Your task to perform on an android device: turn off improve location accuracy Image 0: 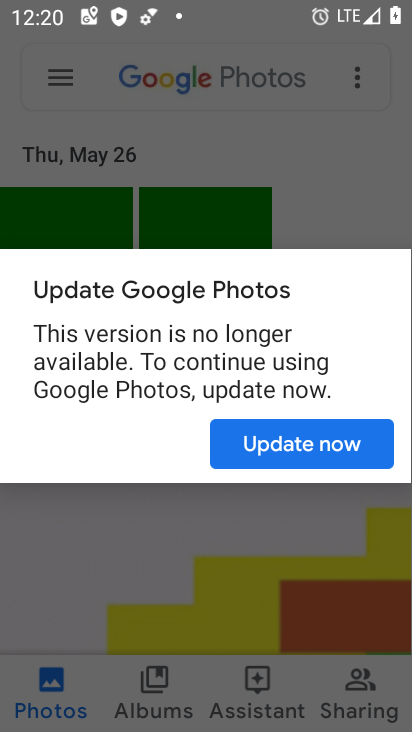
Step 0: press home button
Your task to perform on an android device: turn off improve location accuracy Image 1: 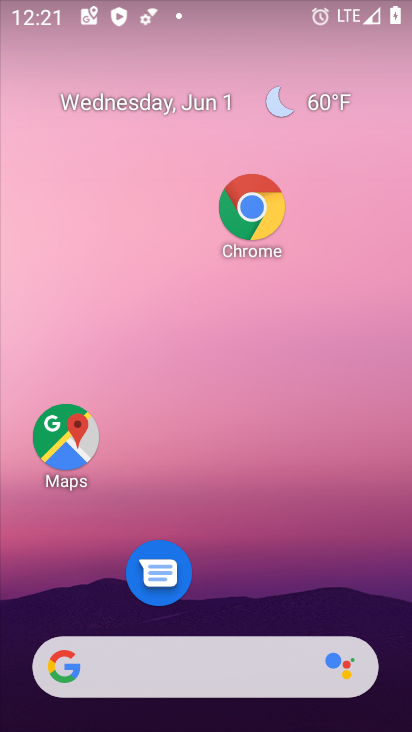
Step 1: drag from (206, 573) to (167, 203)
Your task to perform on an android device: turn off improve location accuracy Image 2: 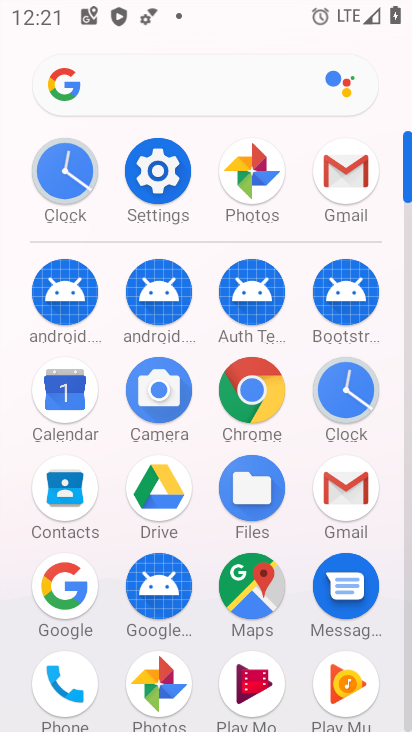
Step 2: click (154, 184)
Your task to perform on an android device: turn off improve location accuracy Image 3: 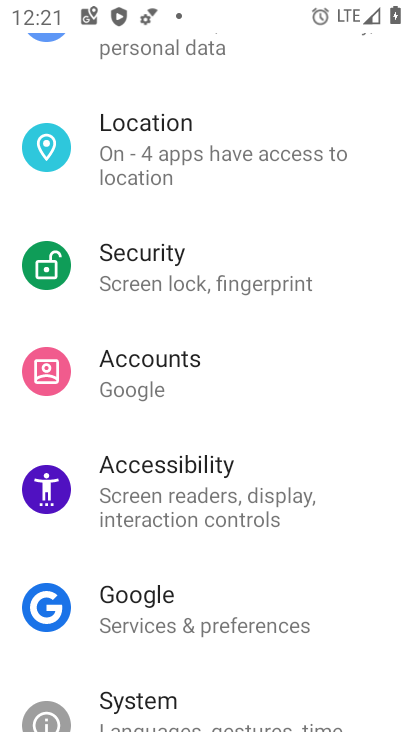
Step 3: click (190, 182)
Your task to perform on an android device: turn off improve location accuracy Image 4: 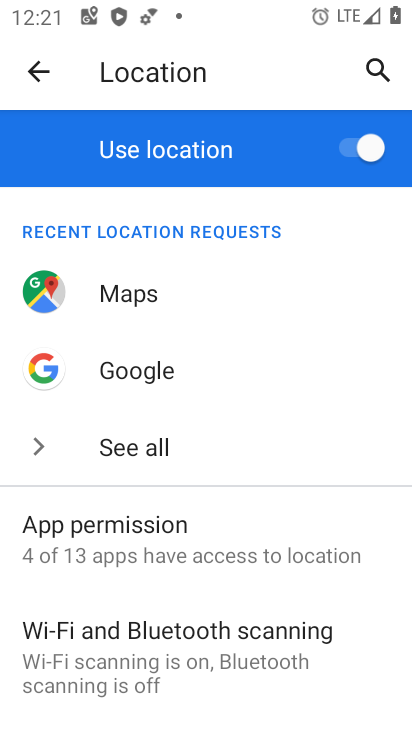
Step 4: drag from (235, 606) to (246, 357)
Your task to perform on an android device: turn off improve location accuracy Image 5: 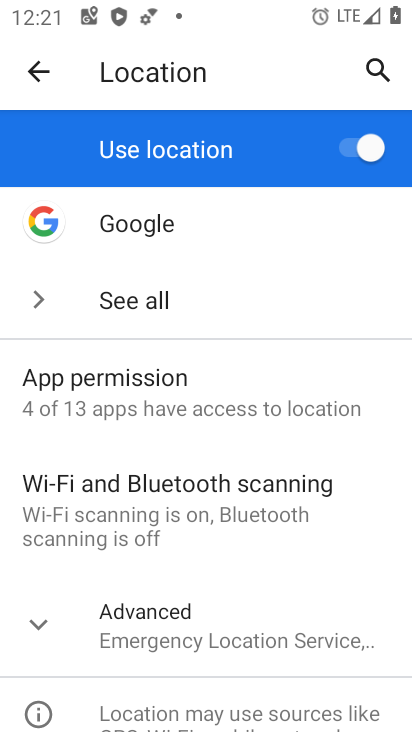
Step 5: click (211, 607)
Your task to perform on an android device: turn off improve location accuracy Image 6: 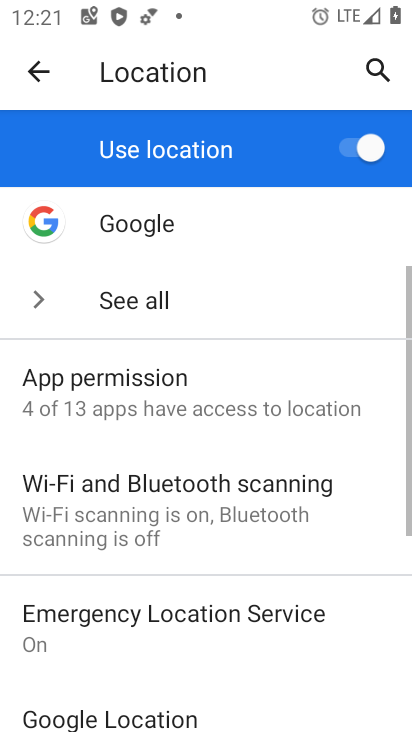
Step 6: drag from (220, 611) to (221, 392)
Your task to perform on an android device: turn off improve location accuracy Image 7: 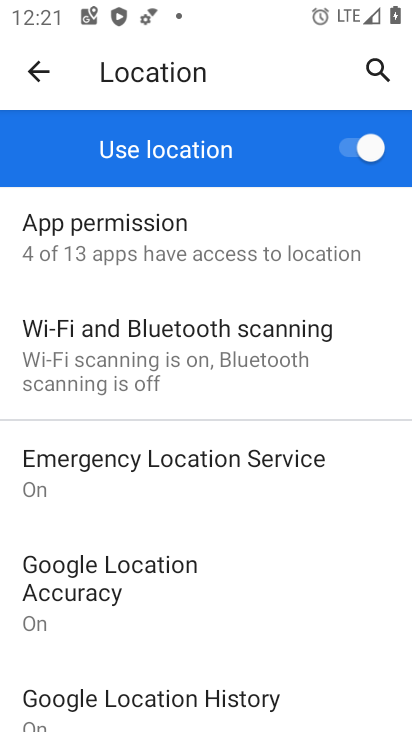
Step 7: click (161, 609)
Your task to perform on an android device: turn off improve location accuracy Image 8: 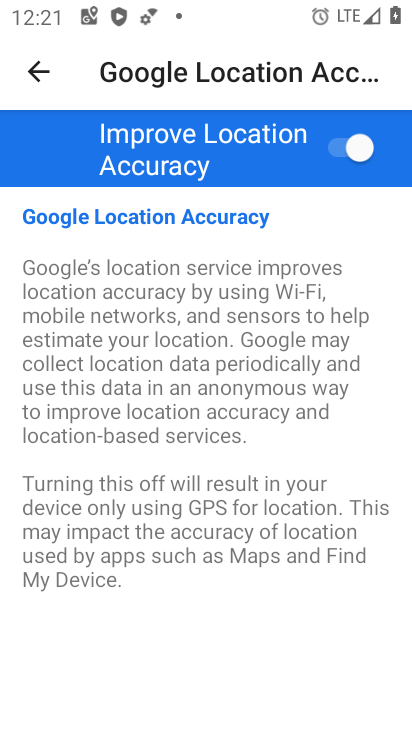
Step 8: click (347, 144)
Your task to perform on an android device: turn off improve location accuracy Image 9: 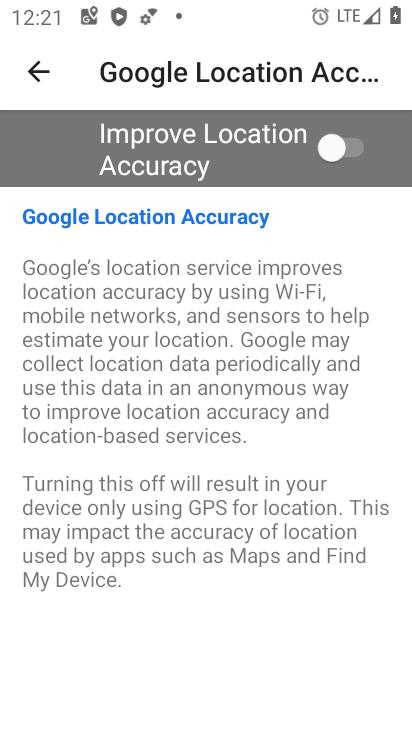
Step 9: task complete